Your task to perform on an android device: turn off airplane mode Image 0: 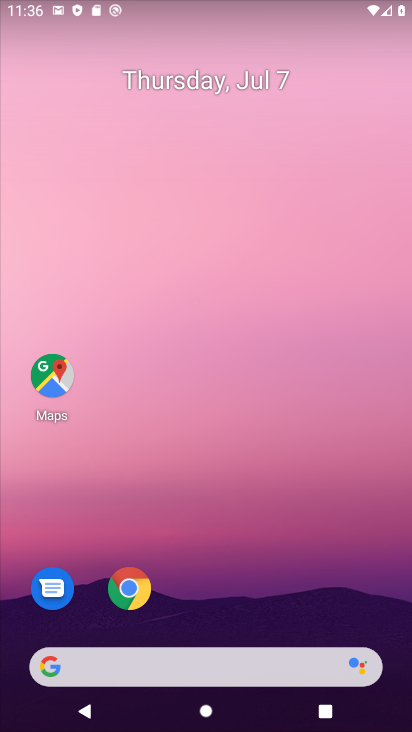
Step 0: drag from (162, 329) to (144, 269)
Your task to perform on an android device: turn off airplane mode Image 1: 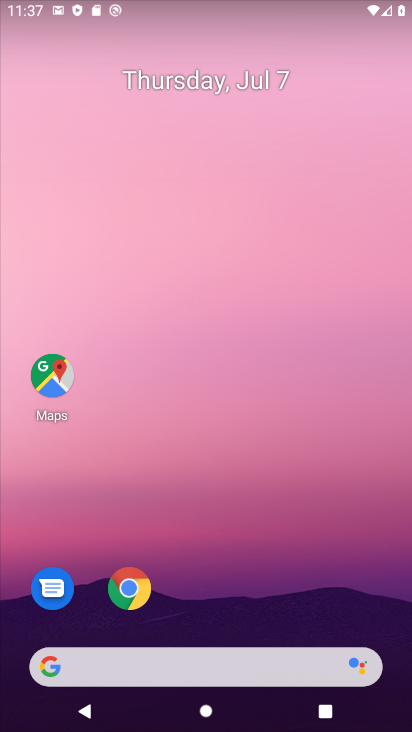
Step 1: drag from (168, 258) to (159, 194)
Your task to perform on an android device: turn off airplane mode Image 2: 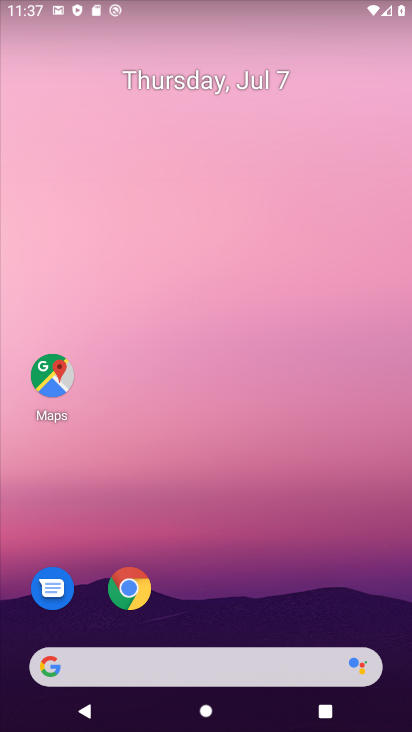
Step 2: drag from (237, 290) to (216, 47)
Your task to perform on an android device: turn off airplane mode Image 3: 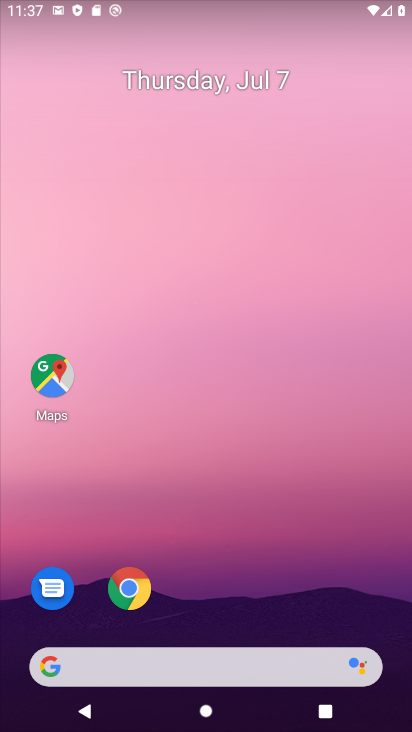
Step 3: drag from (191, 194) to (168, 139)
Your task to perform on an android device: turn off airplane mode Image 4: 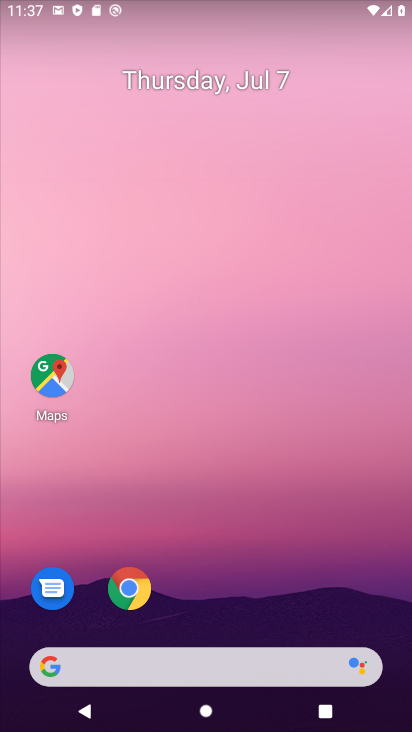
Step 4: drag from (202, 507) to (203, 56)
Your task to perform on an android device: turn off airplane mode Image 5: 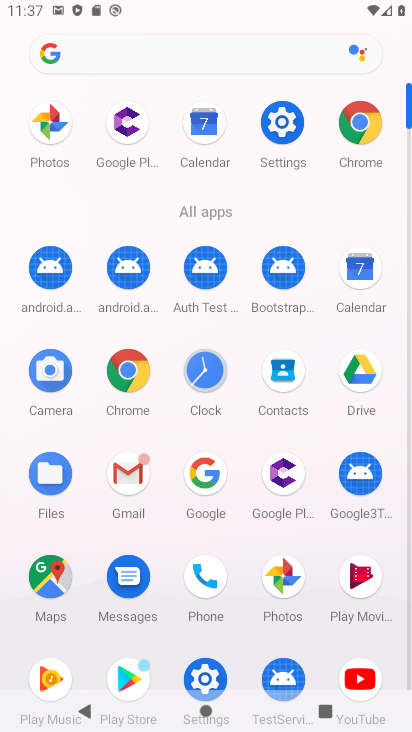
Step 5: click (272, 142)
Your task to perform on an android device: turn off airplane mode Image 6: 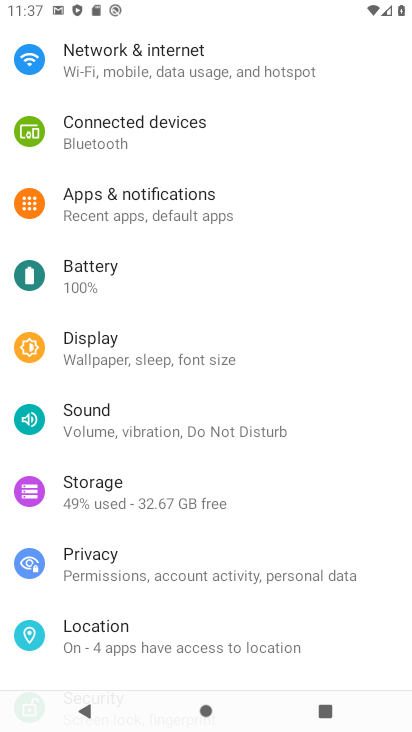
Step 6: click (200, 71)
Your task to perform on an android device: turn off airplane mode Image 7: 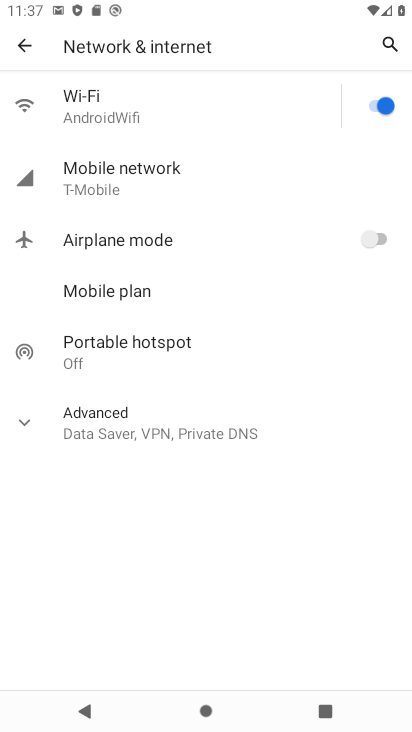
Step 7: task complete